Your task to perform on an android device: turn smart compose on in the gmail app Image 0: 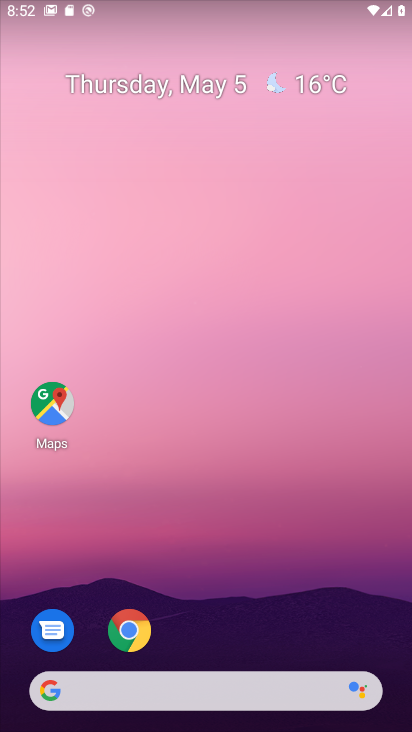
Step 0: drag from (264, 542) to (371, 16)
Your task to perform on an android device: turn smart compose on in the gmail app Image 1: 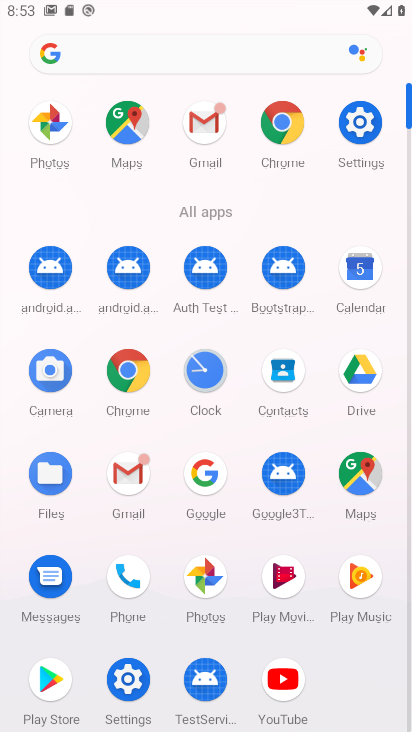
Step 1: click (195, 126)
Your task to perform on an android device: turn smart compose on in the gmail app Image 2: 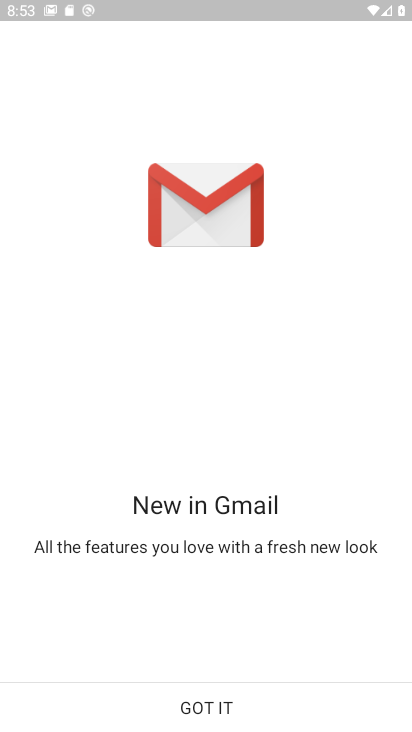
Step 2: click (200, 705)
Your task to perform on an android device: turn smart compose on in the gmail app Image 3: 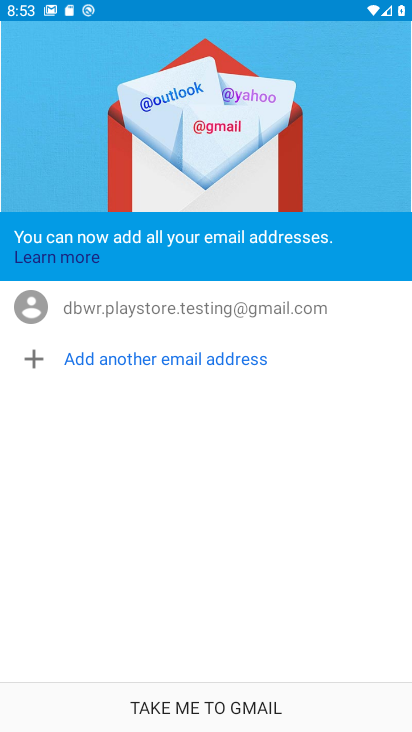
Step 3: click (204, 715)
Your task to perform on an android device: turn smart compose on in the gmail app Image 4: 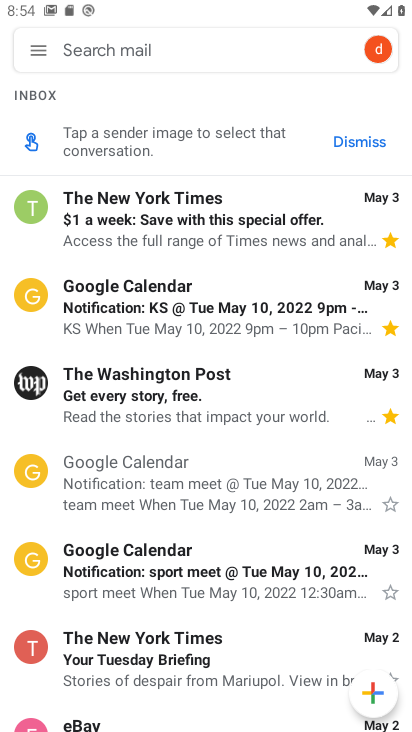
Step 4: click (45, 51)
Your task to perform on an android device: turn smart compose on in the gmail app Image 5: 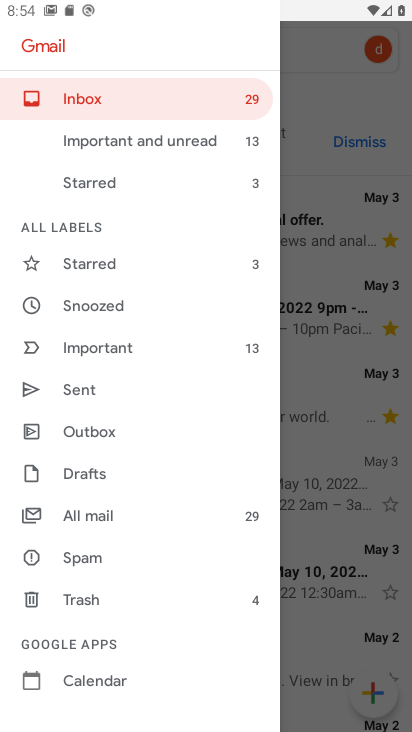
Step 5: drag from (176, 576) to (204, 187)
Your task to perform on an android device: turn smart compose on in the gmail app Image 6: 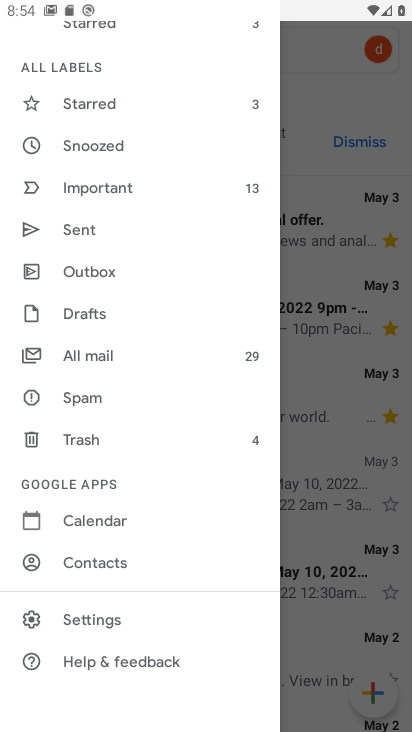
Step 6: click (72, 611)
Your task to perform on an android device: turn smart compose on in the gmail app Image 7: 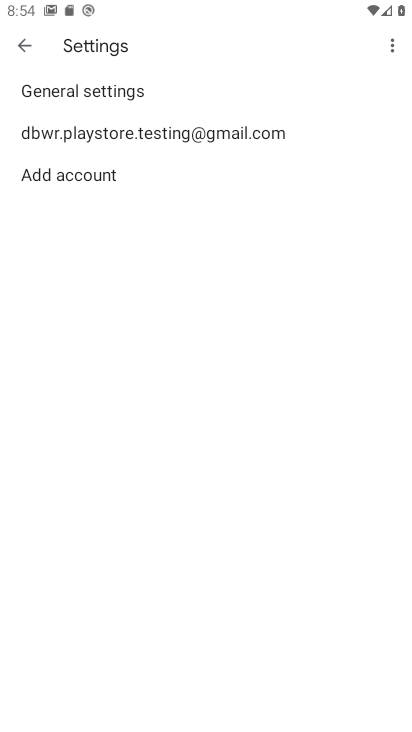
Step 7: click (102, 137)
Your task to perform on an android device: turn smart compose on in the gmail app Image 8: 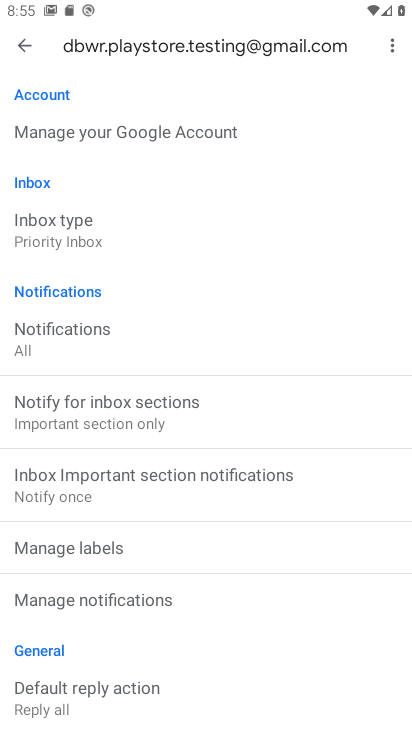
Step 8: task complete